Your task to perform on an android device: Do I have any events this weekend? Image 0: 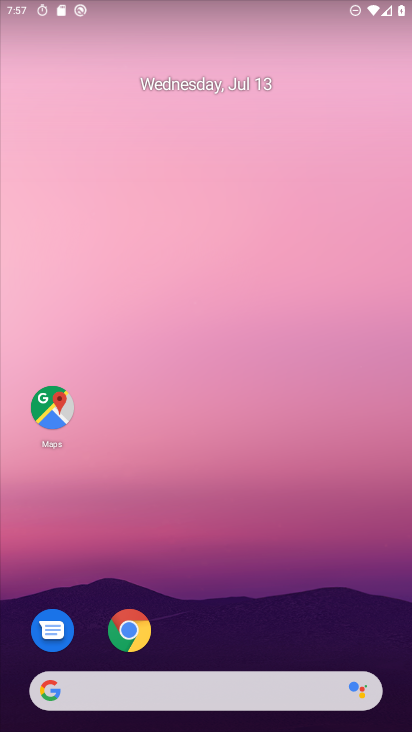
Step 0: drag from (384, 651) to (264, 4)
Your task to perform on an android device: Do I have any events this weekend? Image 1: 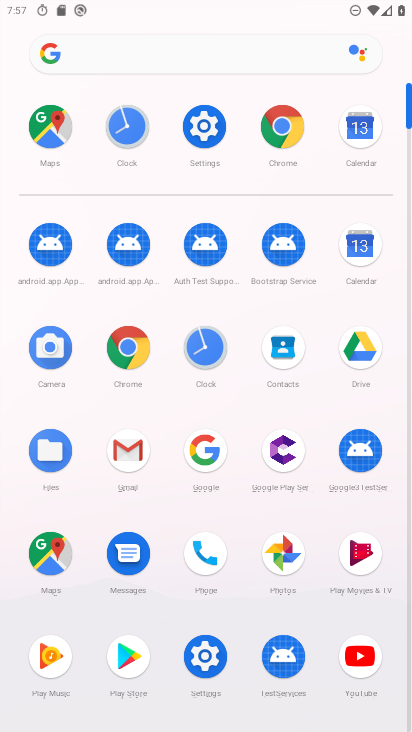
Step 1: click (365, 247)
Your task to perform on an android device: Do I have any events this weekend? Image 2: 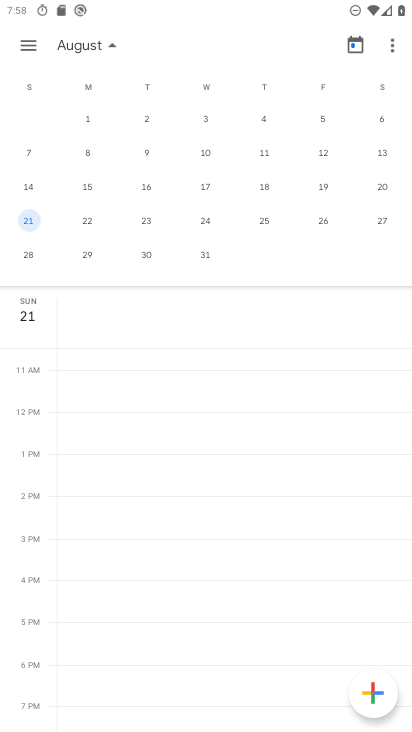
Step 2: task complete